Your task to perform on an android device: Show me recent news Image 0: 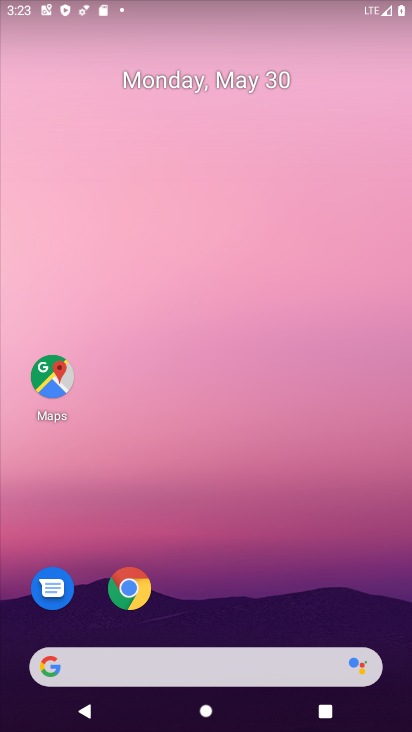
Step 0: drag from (280, 191) to (279, 30)
Your task to perform on an android device: Show me recent news Image 1: 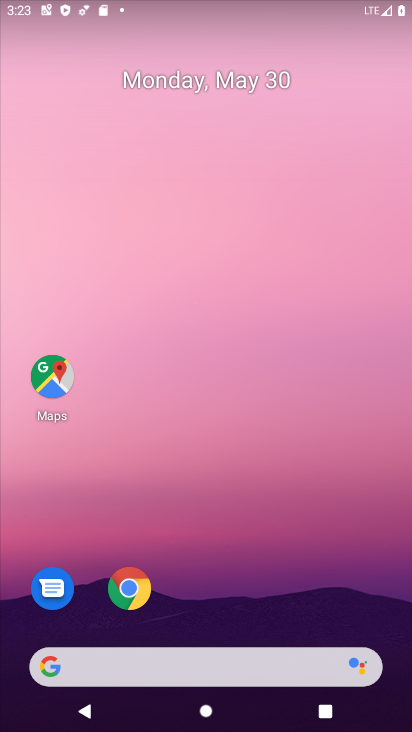
Step 1: drag from (329, 508) to (188, 1)
Your task to perform on an android device: Show me recent news Image 2: 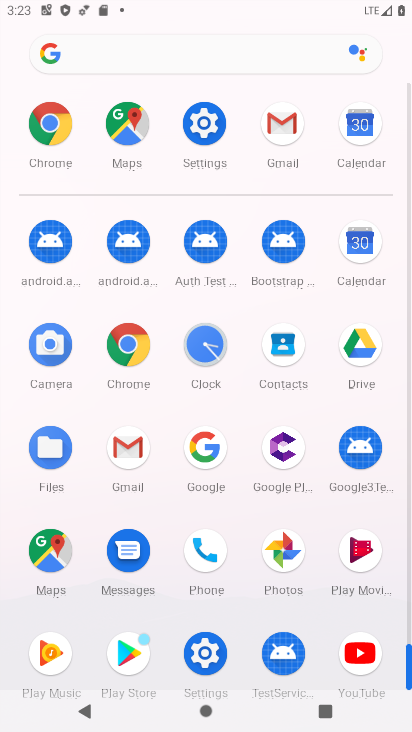
Step 2: drag from (16, 419) to (12, 255)
Your task to perform on an android device: Show me recent news Image 3: 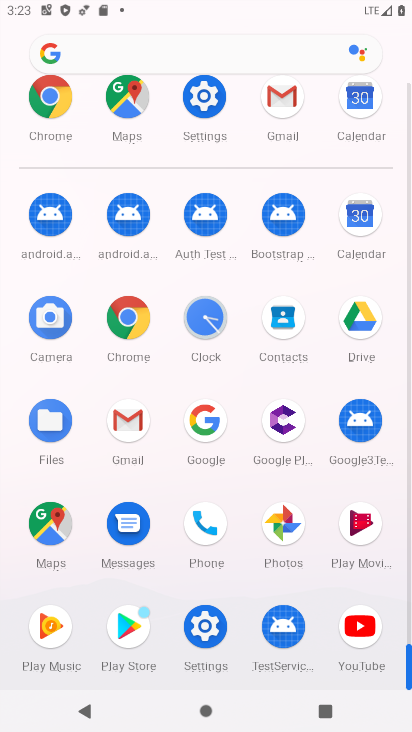
Step 3: click (123, 314)
Your task to perform on an android device: Show me recent news Image 4: 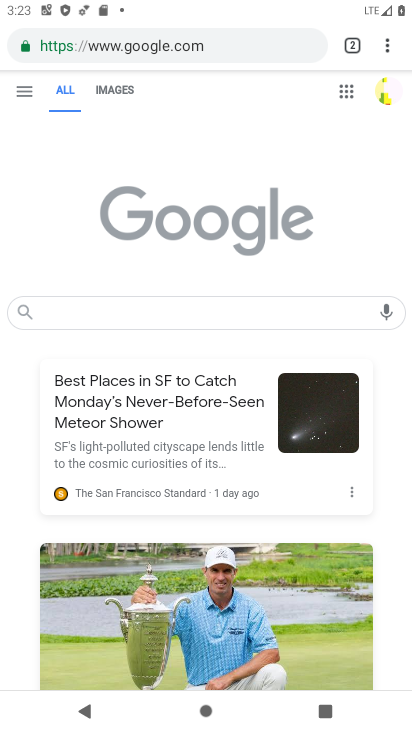
Step 4: click (171, 20)
Your task to perform on an android device: Show me recent news Image 5: 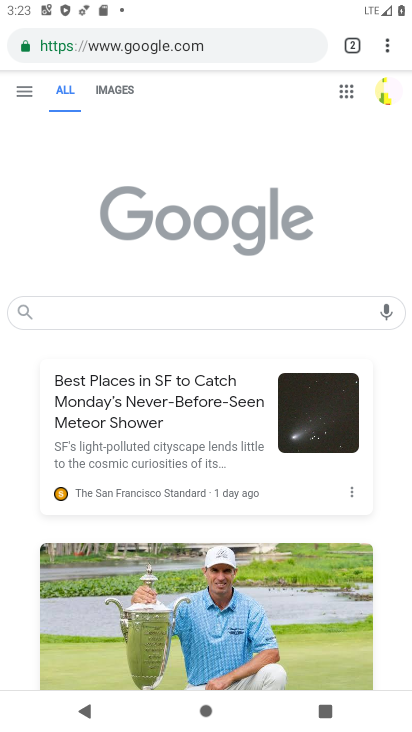
Step 5: click (174, 47)
Your task to perform on an android device: Show me recent news Image 6: 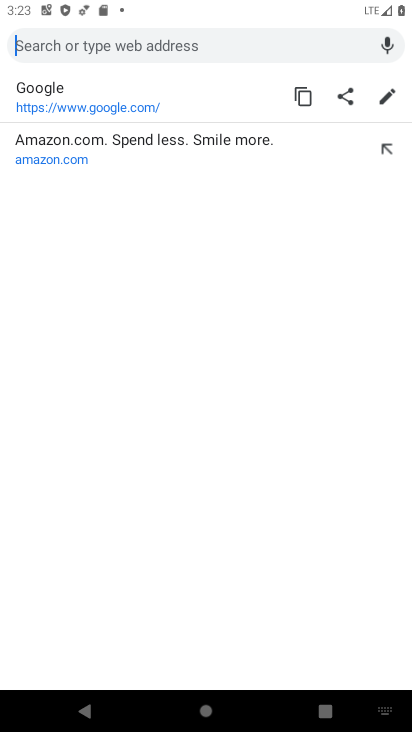
Step 6: type "Show me recent news"
Your task to perform on an android device: Show me recent news Image 7: 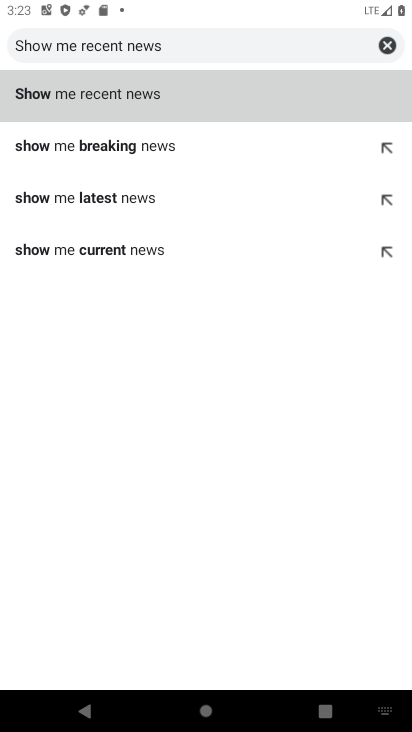
Step 7: click (160, 81)
Your task to perform on an android device: Show me recent news Image 8: 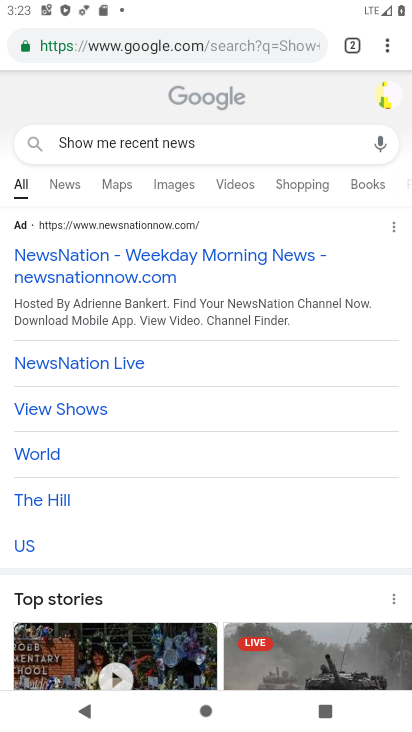
Step 8: task complete